Your task to perform on an android device: toggle wifi Image 0: 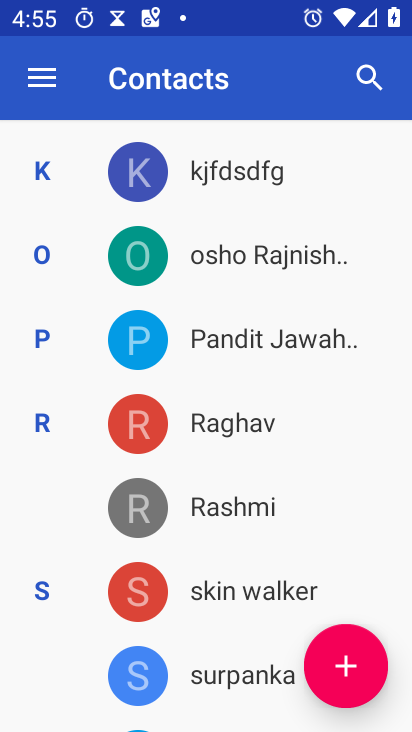
Step 0: press home button
Your task to perform on an android device: toggle wifi Image 1: 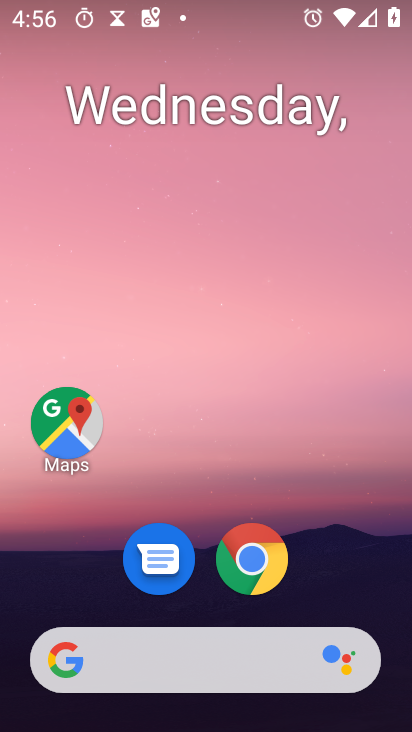
Step 1: drag from (372, 560) to (301, 124)
Your task to perform on an android device: toggle wifi Image 2: 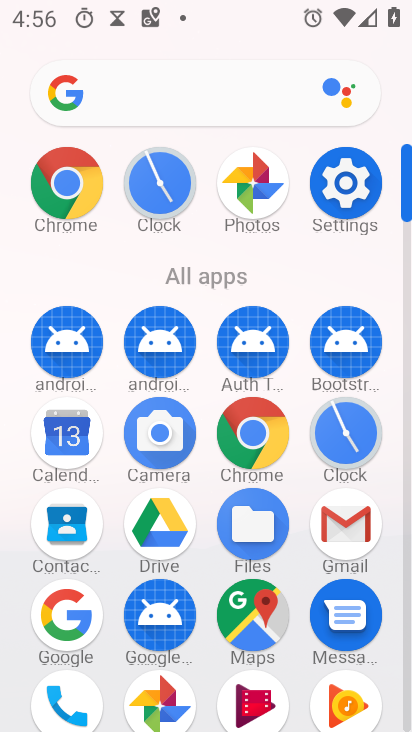
Step 2: click (345, 167)
Your task to perform on an android device: toggle wifi Image 3: 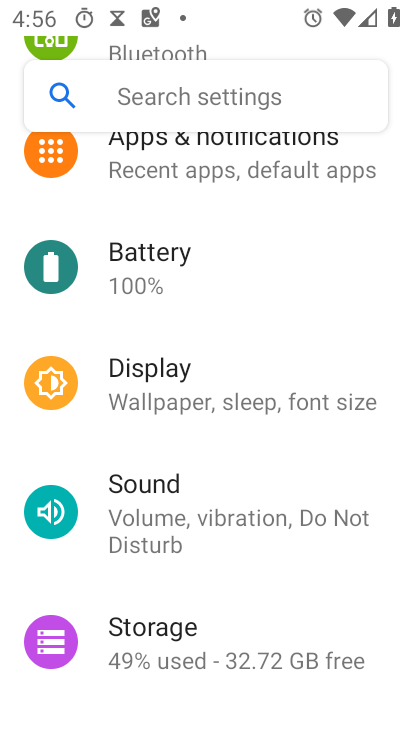
Step 3: drag from (279, 169) to (306, 731)
Your task to perform on an android device: toggle wifi Image 4: 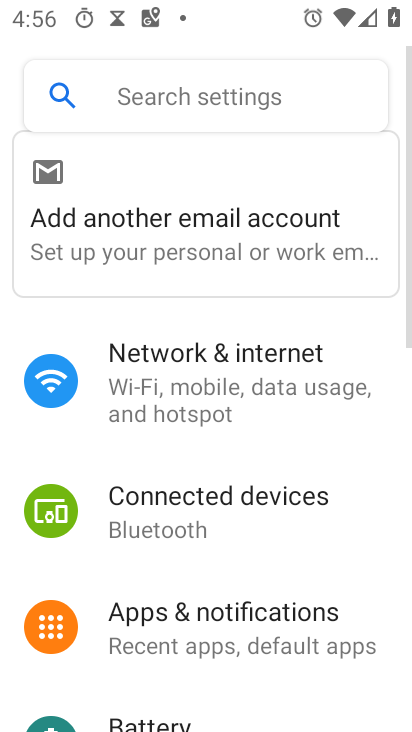
Step 4: click (260, 399)
Your task to perform on an android device: toggle wifi Image 5: 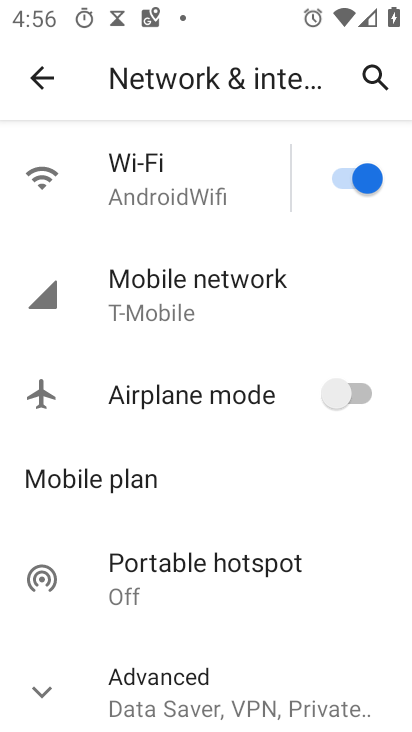
Step 5: click (329, 185)
Your task to perform on an android device: toggle wifi Image 6: 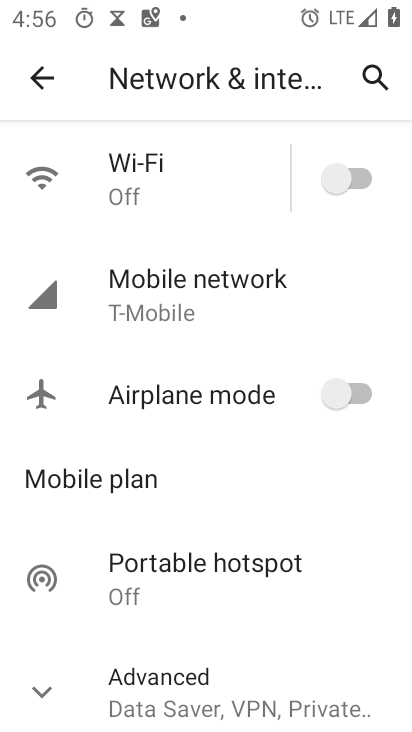
Step 6: task complete